Your task to perform on an android device: Search for "usb-a" on costco, select the first entry, add it to the cart, then select checkout. Image 0: 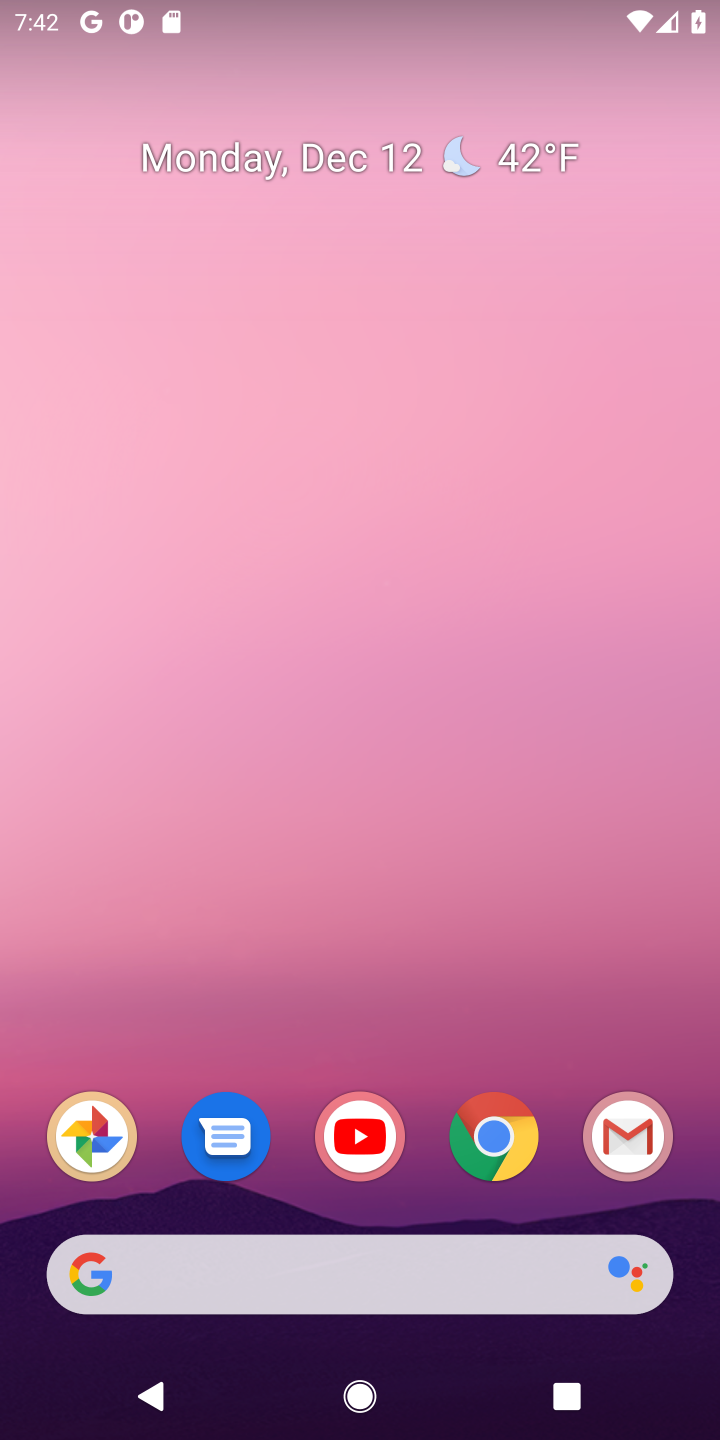
Step 0: click (490, 1164)
Your task to perform on an android device: Search for "usb-a" on costco, select the first entry, add it to the cart, then select checkout. Image 1: 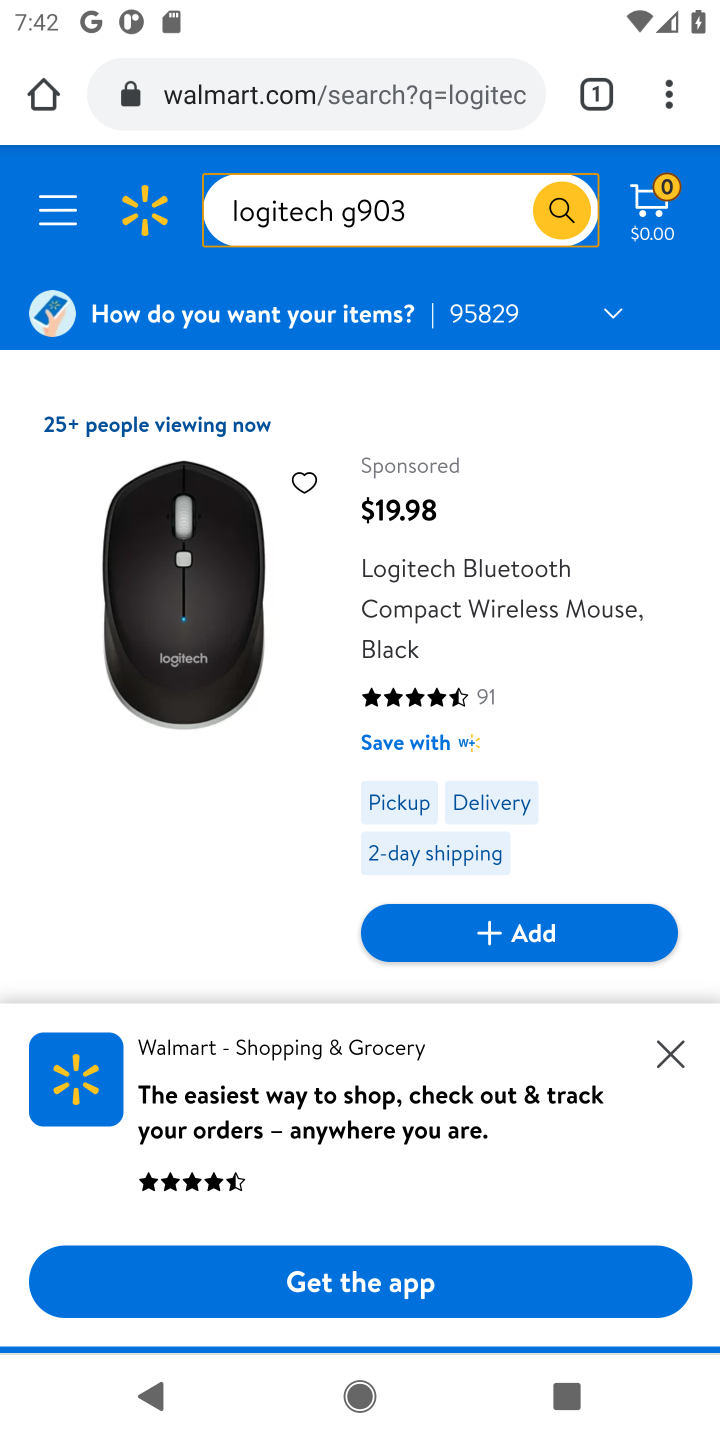
Step 1: click (286, 80)
Your task to perform on an android device: Search for "usb-a" on costco, select the first entry, add it to the cart, then select checkout. Image 2: 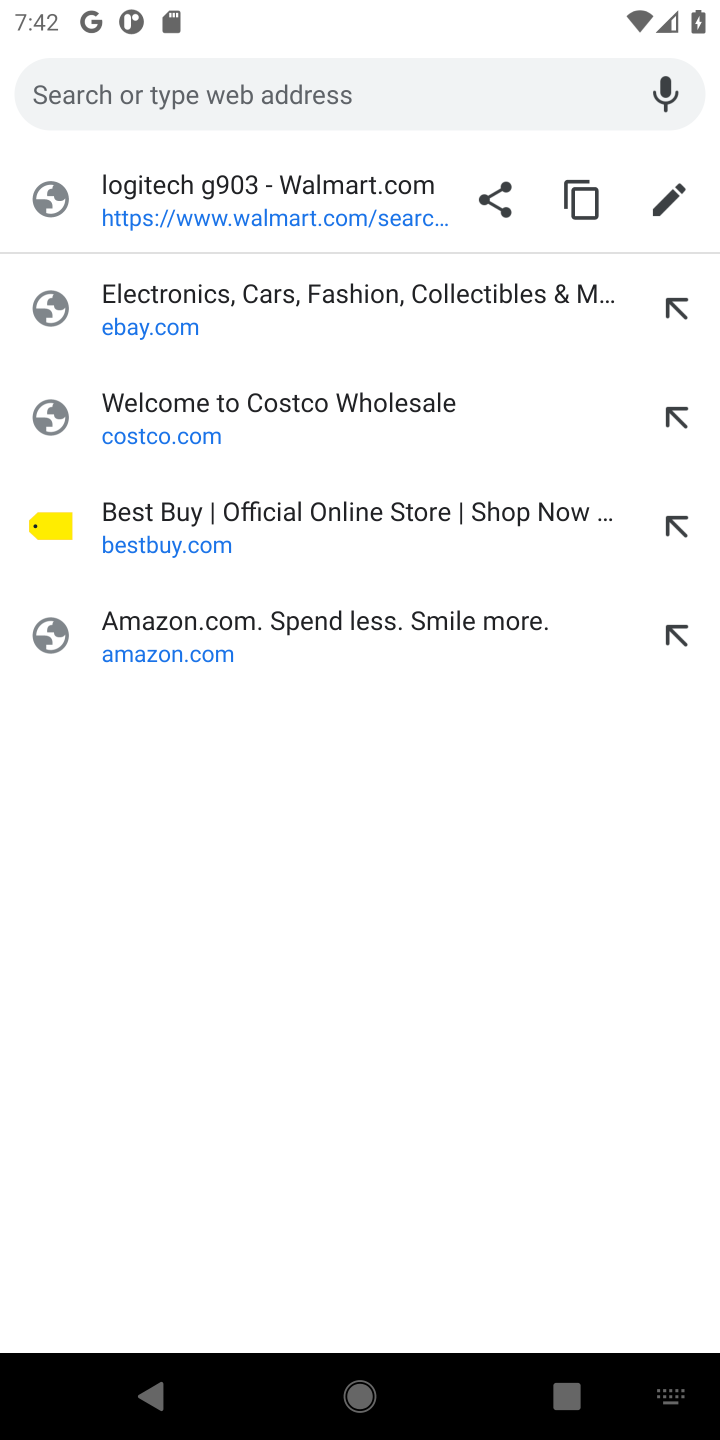
Step 2: click (120, 445)
Your task to perform on an android device: Search for "usb-a" on costco, select the first entry, add it to the cart, then select checkout. Image 3: 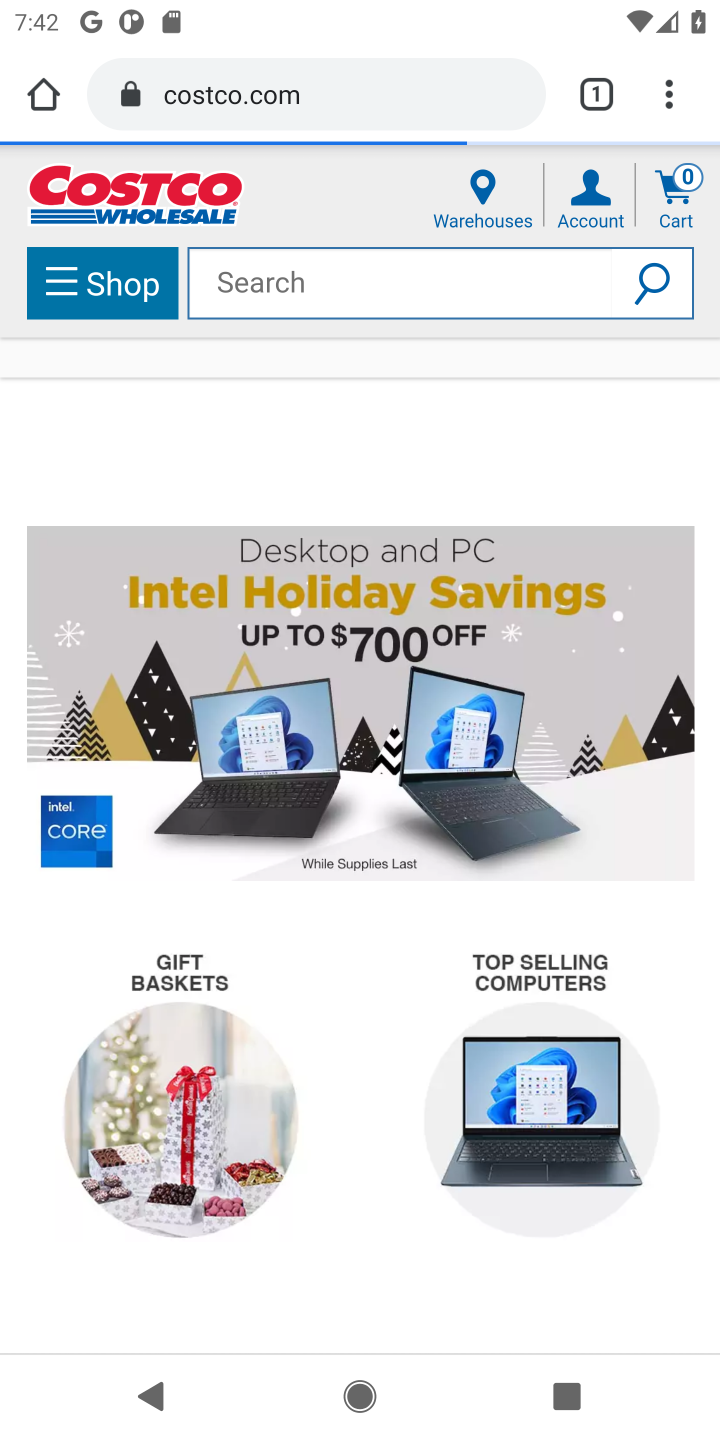
Step 3: click (221, 297)
Your task to perform on an android device: Search for "usb-a" on costco, select the first entry, add it to the cart, then select checkout. Image 4: 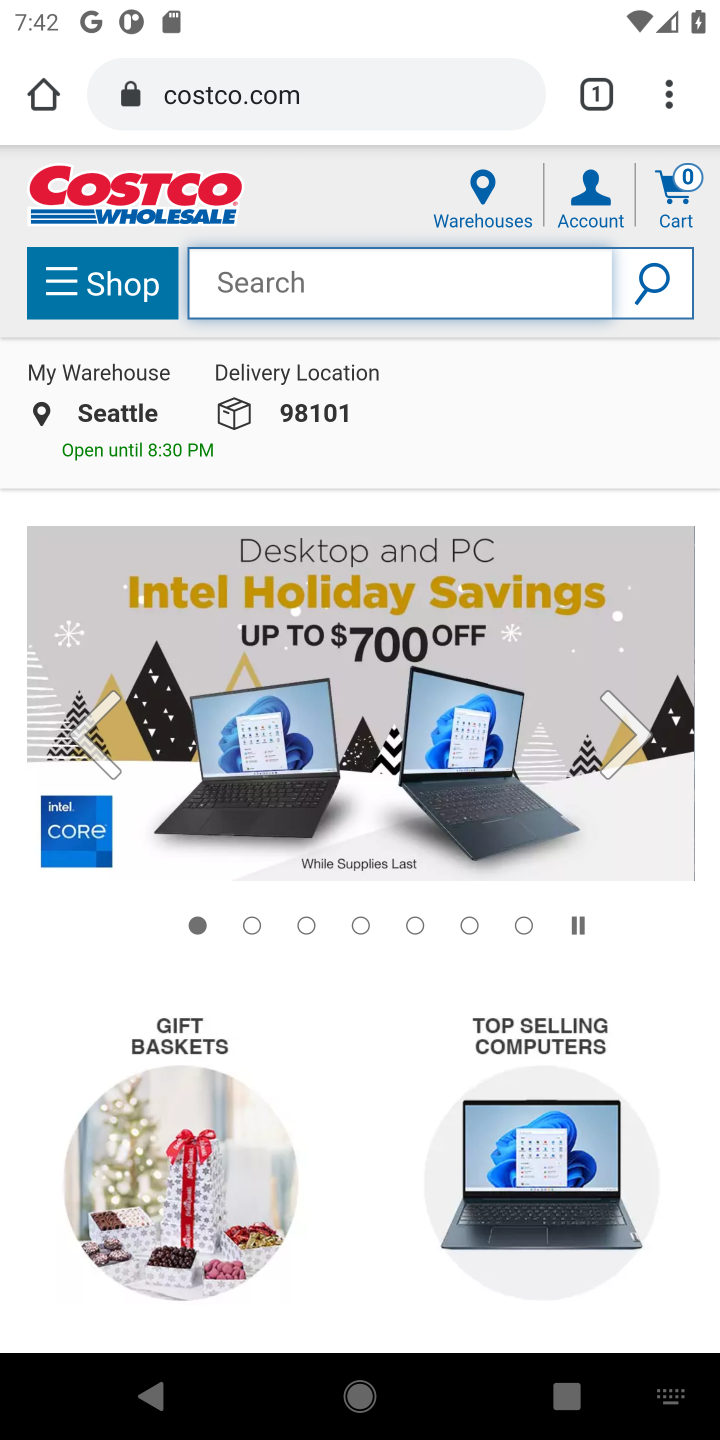
Step 4: type "usb-a"
Your task to perform on an android device: Search for "usb-a" on costco, select the first entry, add it to the cart, then select checkout. Image 5: 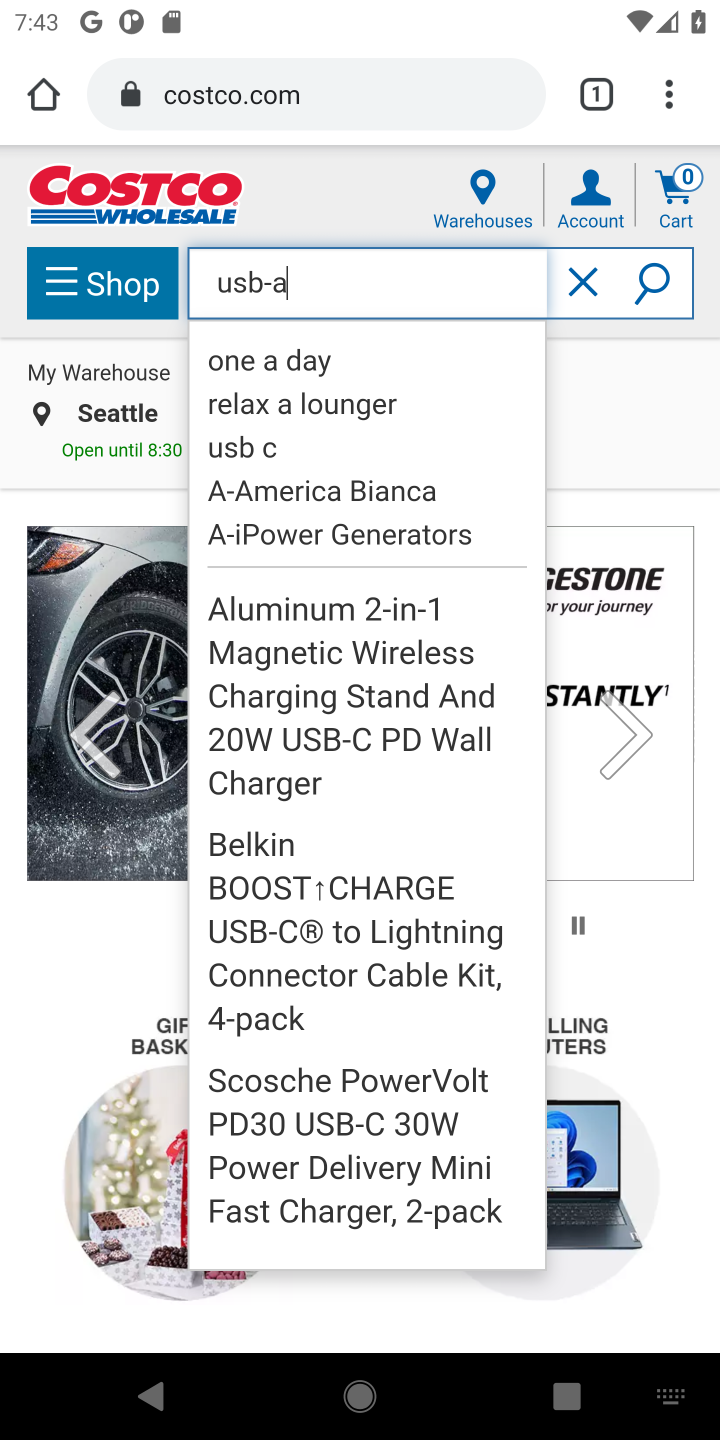
Step 5: click (653, 296)
Your task to perform on an android device: Search for "usb-a" on costco, select the first entry, add it to the cart, then select checkout. Image 6: 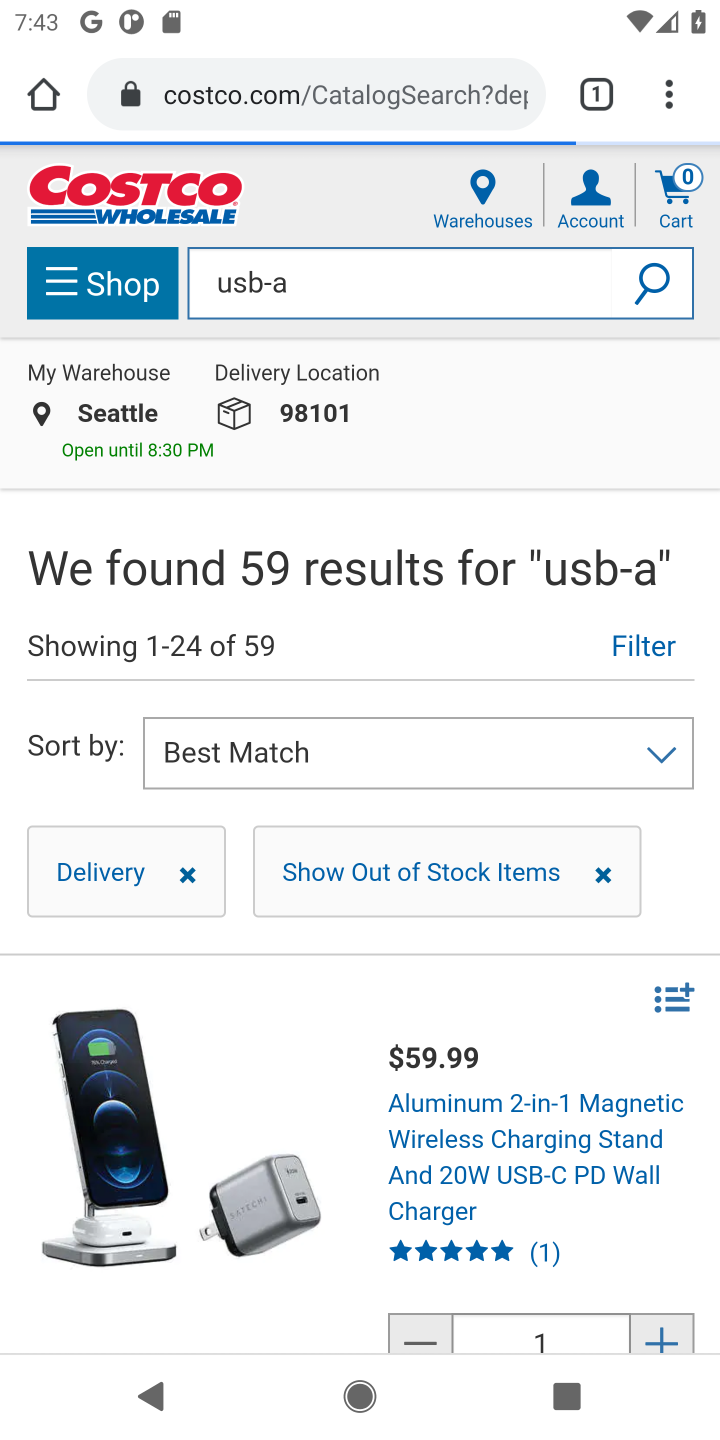
Step 6: task complete